Your task to perform on an android device: toggle improve location accuracy Image 0: 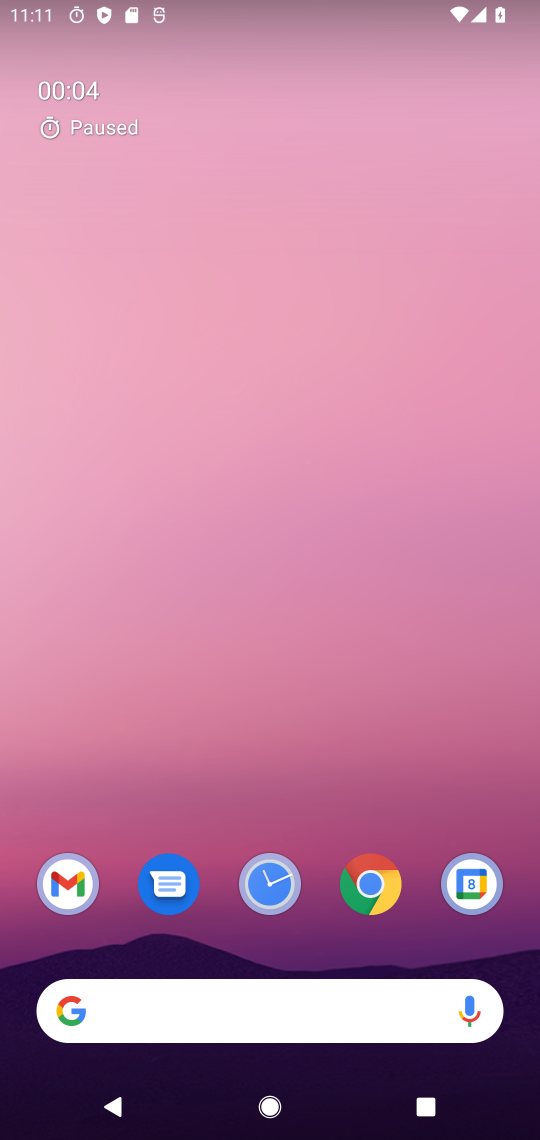
Step 0: drag from (219, 421) to (219, 81)
Your task to perform on an android device: toggle improve location accuracy Image 1: 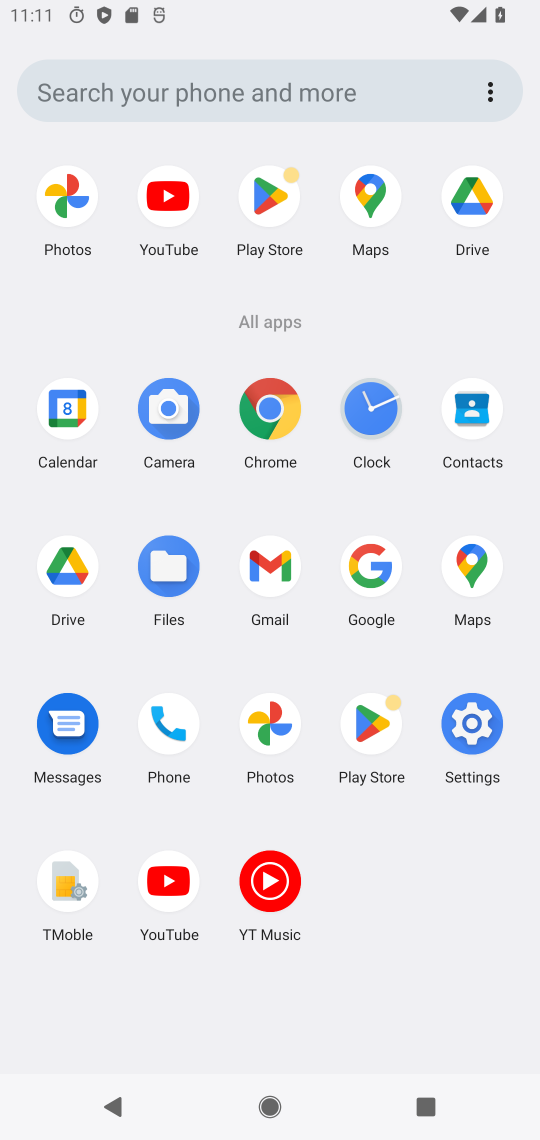
Step 1: click (475, 726)
Your task to perform on an android device: toggle improve location accuracy Image 2: 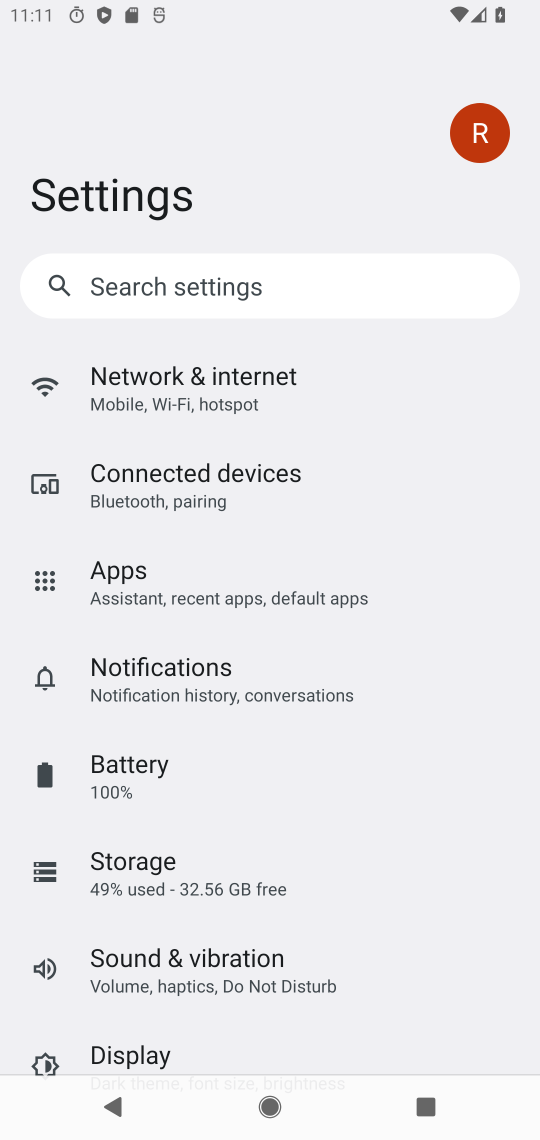
Step 2: drag from (201, 904) to (201, 589)
Your task to perform on an android device: toggle improve location accuracy Image 3: 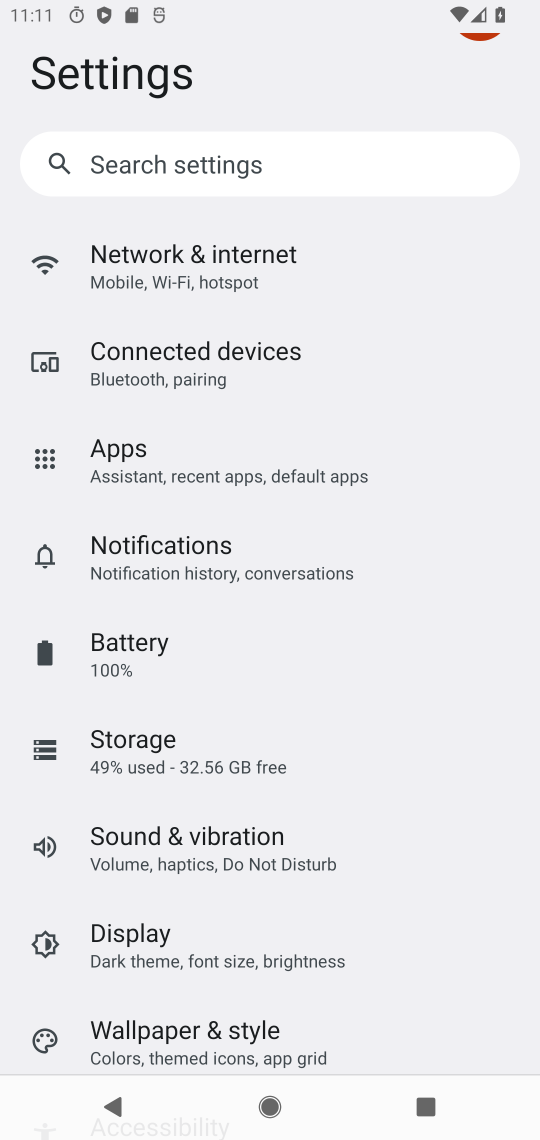
Step 3: drag from (168, 864) to (202, 498)
Your task to perform on an android device: toggle improve location accuracy Image 4: 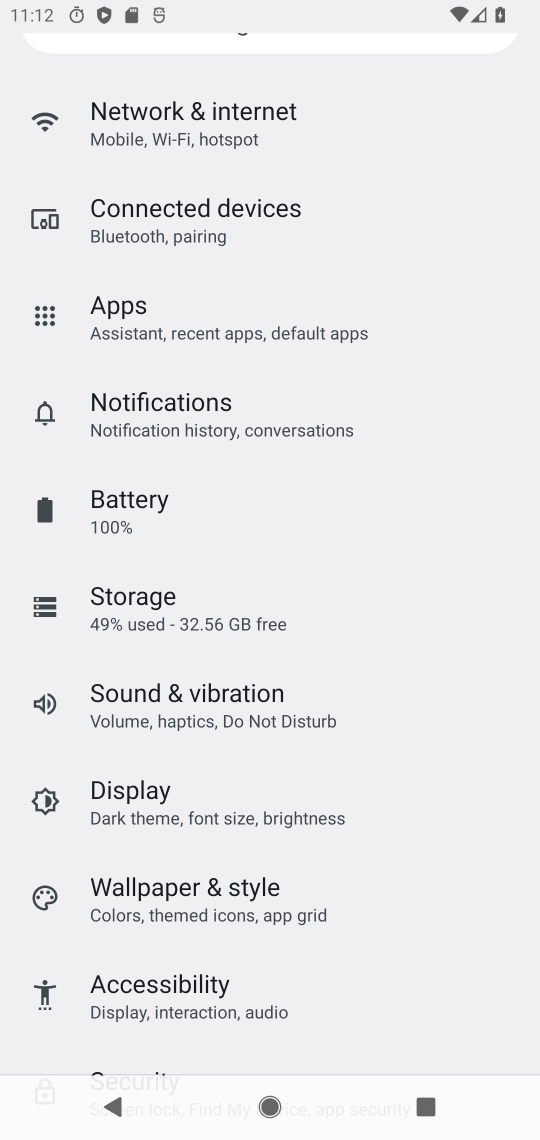
Step 4: drag from (127, 975) to (163, 566)
Your task to perform on an android device: toggle improve location accuracy Image 5: 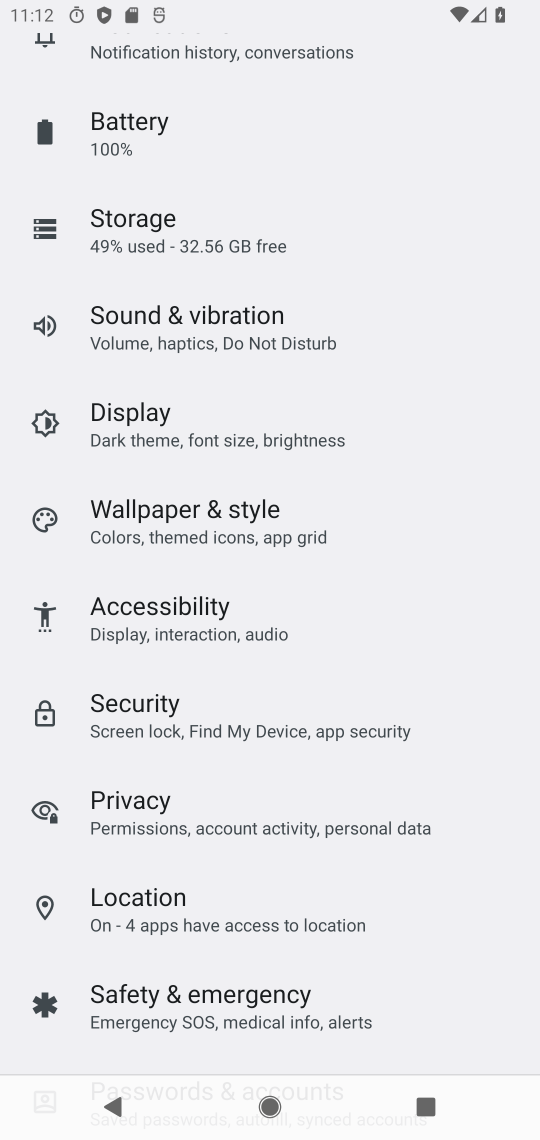
Step 5: click (106, 910)
Your task to perform on an android device: toggle improve location accuracy Image 6: 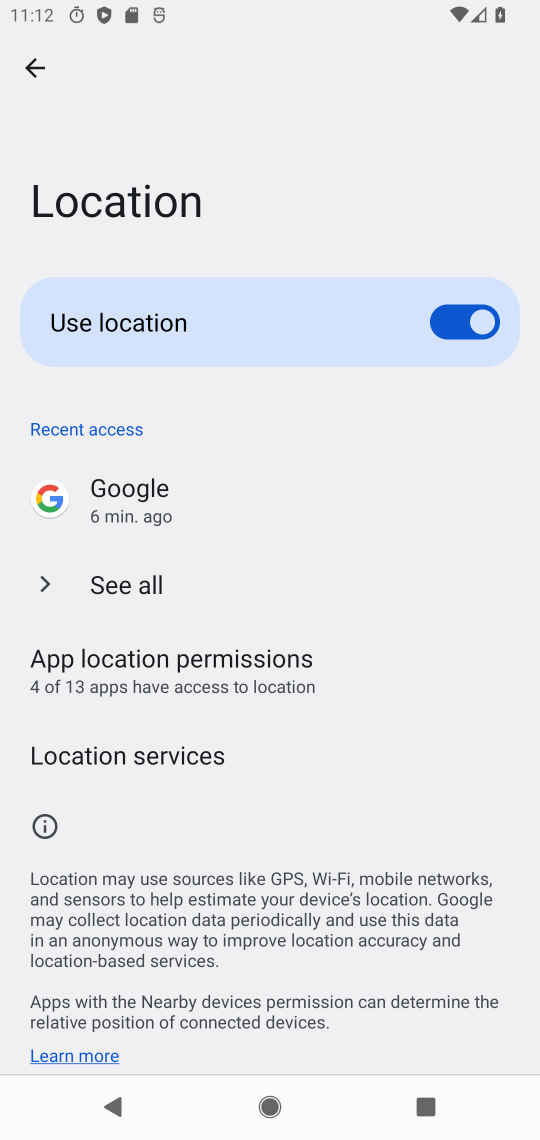
Step 6: click (445, 324)
Your task to perform on an android device: toggle improve location accuracy Image 7: 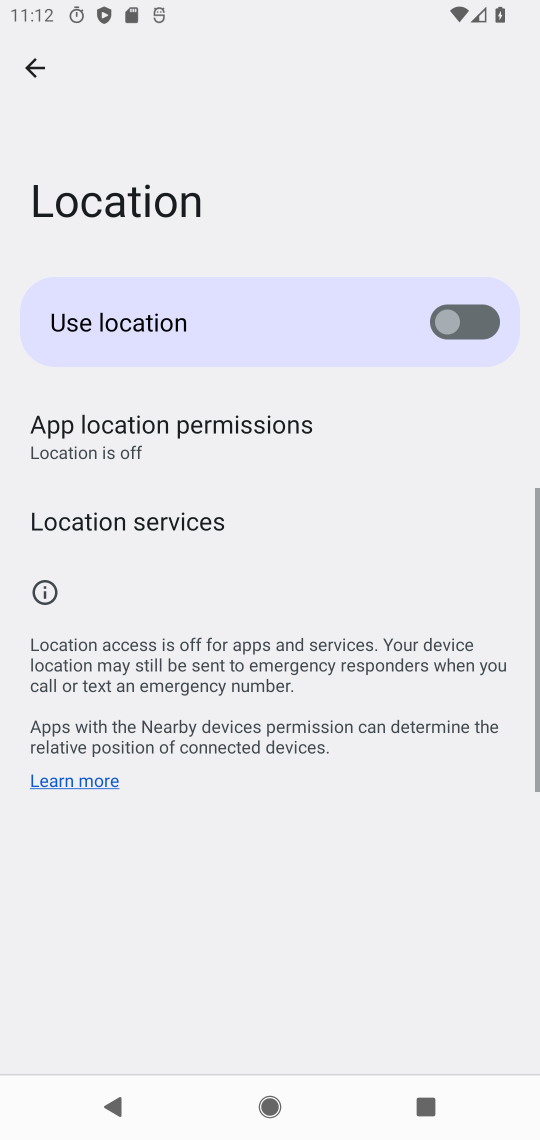
Step 7: task complete